Your task to perform on an android device: Search for pizza restaurants on Maps Image 0: 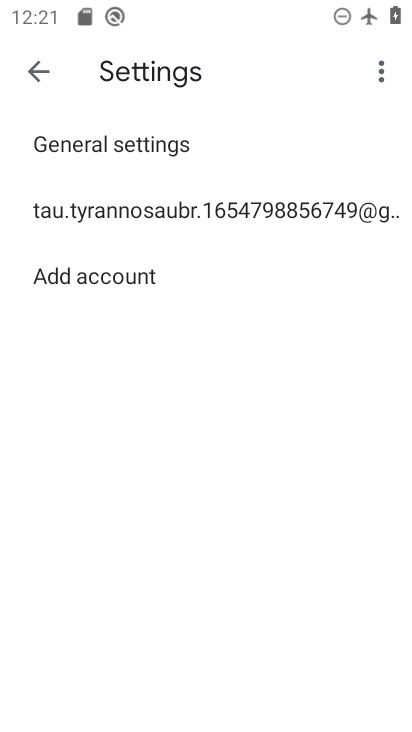
Step 0: press home button
Your task to perform on an android device: Search for pizza restaurants on Maps Image 1: 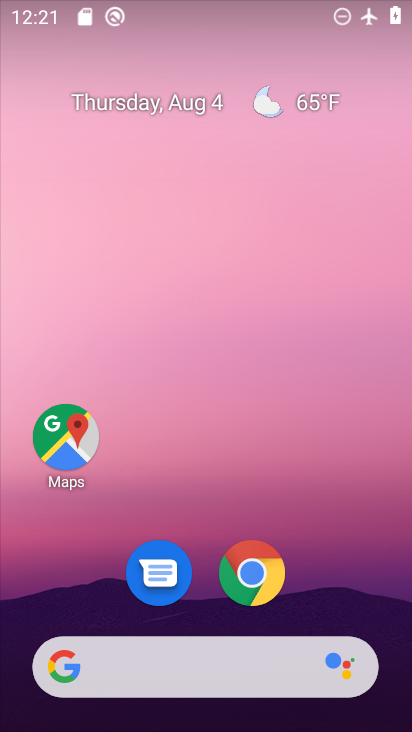
Step 1: drag from (332, 498) to (326, 380)
Your task to perform on an android device: Search for pizza restaurants on Maps Image 2: 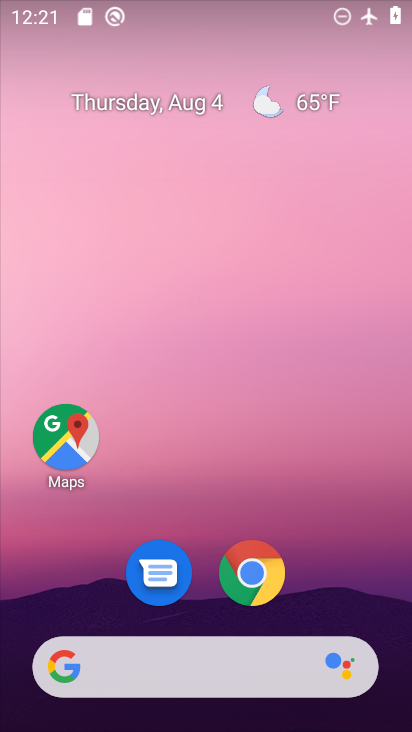
Step 2: drag from (344, 517) to (327, 184)
Your task to perform on an android device: Search for pizza restaurants on Maps Image 3: 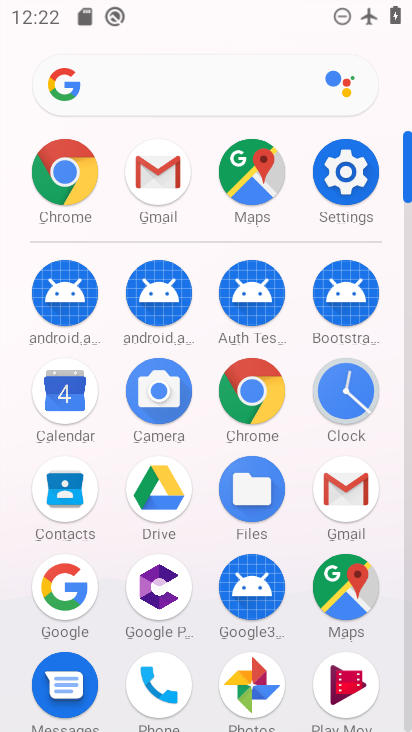
Step 3: click (353, 586)
Your task to perform on an android device: Search for pizza restaurants on Maps Image 4: 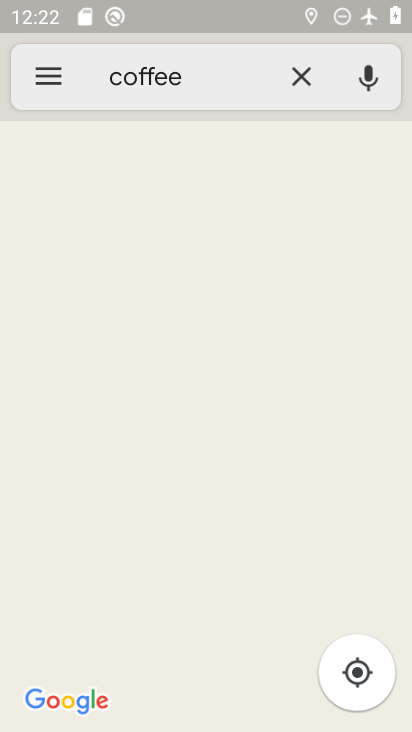
Step 4: click (303, 76)
Your task to perform on an android device: Search for pizza restaurants on Maps Image 5: 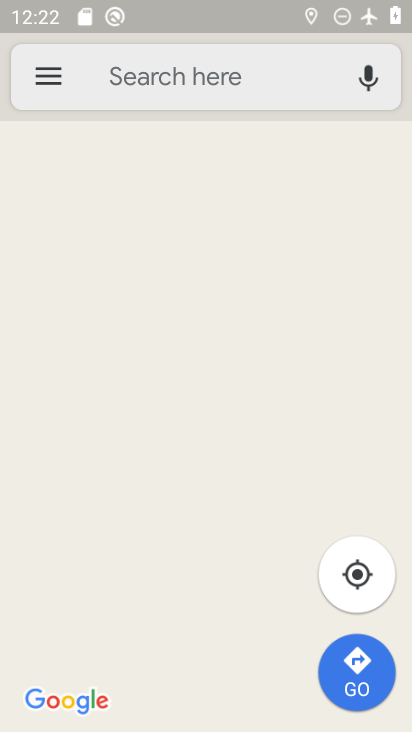
Step 5: click (136, 72)
Your task to perform on an android device: Search for pizza restaurants on Maps Image 6: 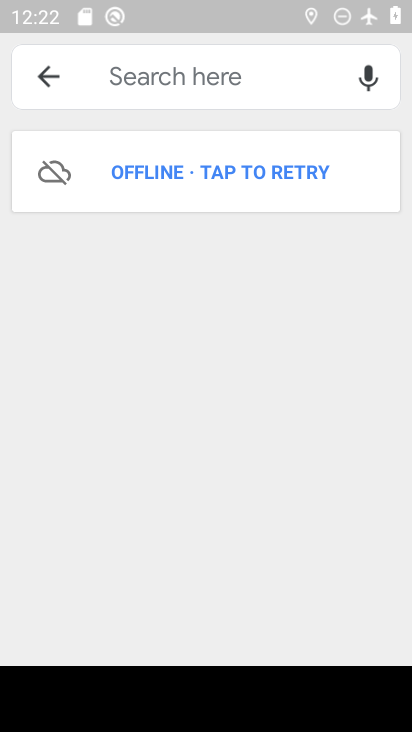
Step 6: type "pizza restaurants"
Your task to perform on an android device: Search for pizza restaurants on Maps Image 7: 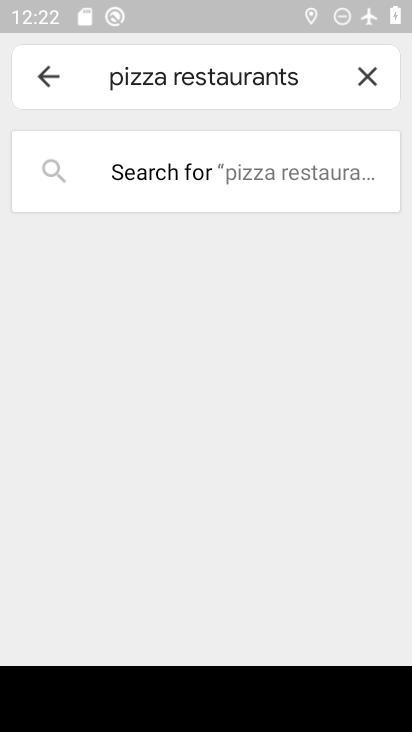
Step 7: press enter
Your task to perform on an android device: Search for pizza restaurants on Maps Image 8: 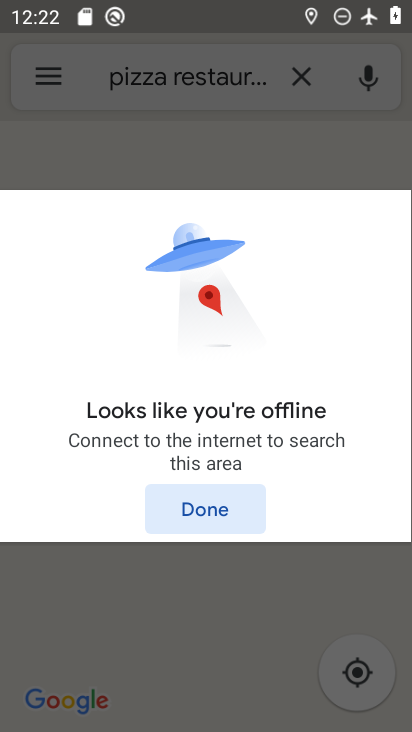
Step 8: task complete